Your task to perform on an android device: toggle data saver in the chrome app Image 0: 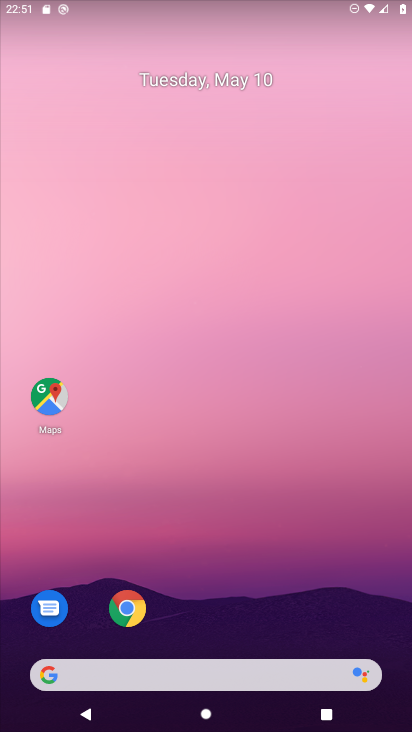
Step 0: drag from (278, 624) to (307, 205)
Your task to perform on an android device: toggle data saver in the chrome app Image 1: 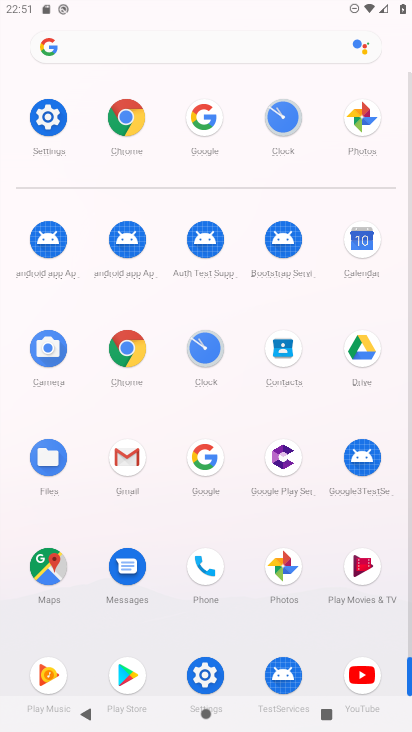
Step 1: click (127, 117)
Your task to perform on an android device: toggle data saver in the chrome app Image 2: 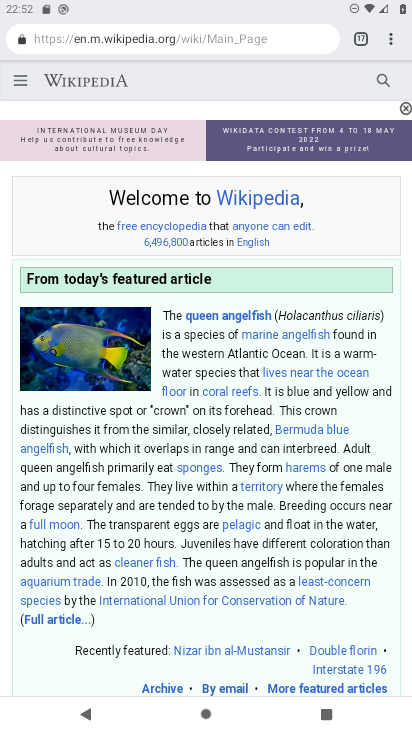
Step 2: click (381, 36)
Your task to perform on an android device: toggle data saver in the chrome app Image 3: 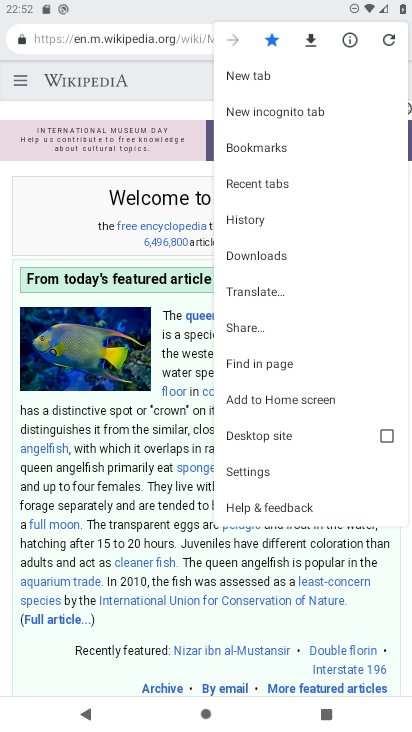
Step 3: click (263, 471)
Your task to perform on an android device: toggle data saver in the chrome app Image 4: 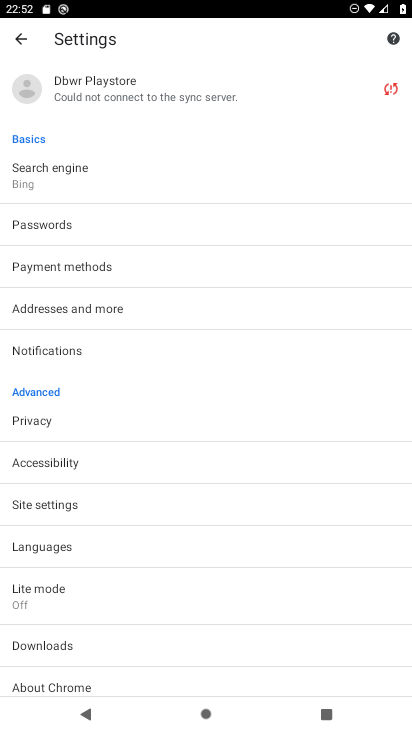
Step 4: click (52, 587)
Your task to perform on an android device: toggle data saver in the chrome app Image 5: 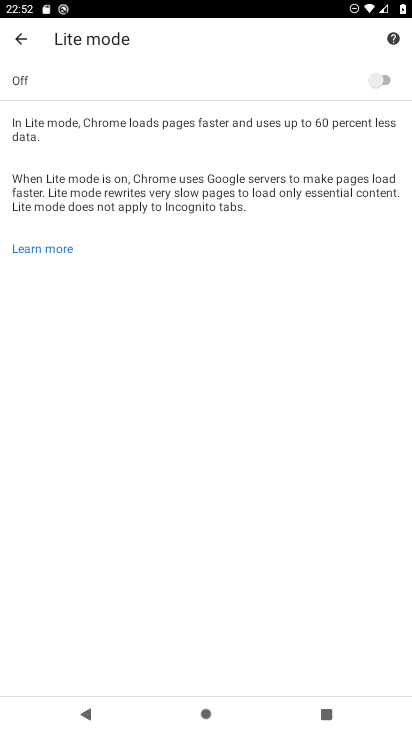
Step 5: click (387, 79)
Your task to perform on an android device: toggle data saver in the chrome app Image 6: 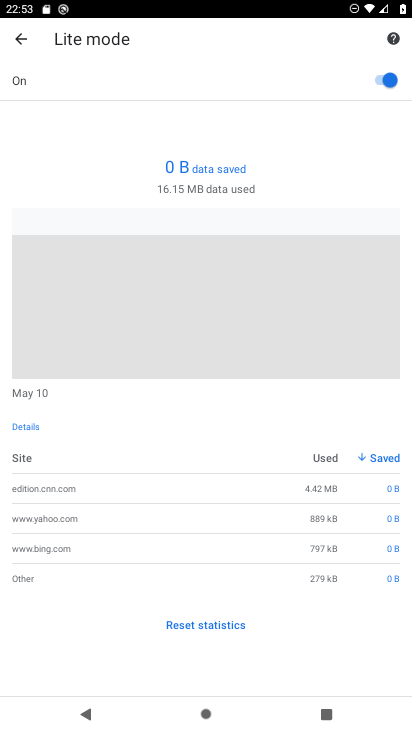
Step 6: task complete